Your task to perform on an android device: Show the shopping cart on walmart.com. Image 0: 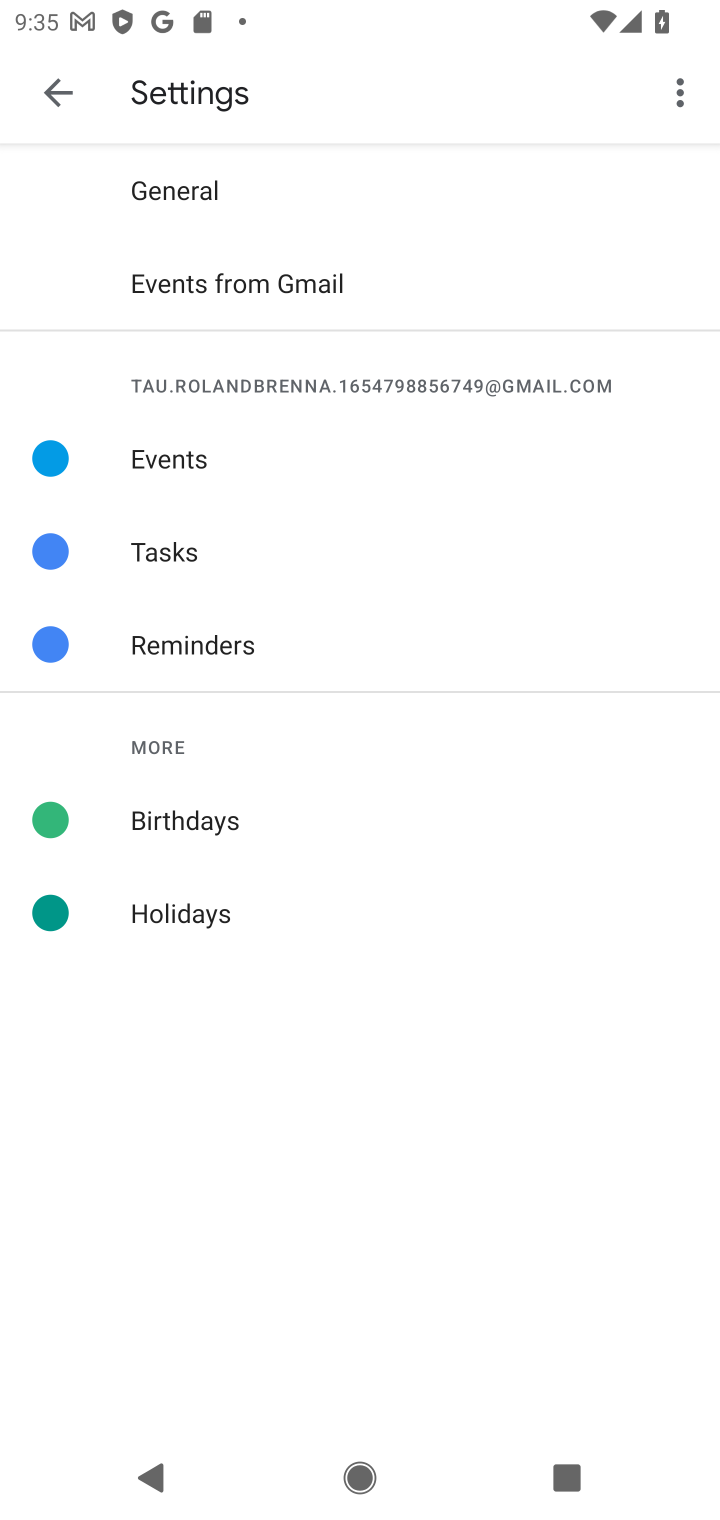
Step 0: press home button
Your task to perform on an android device: Show the shopping cart on walmart.com. Image 1: 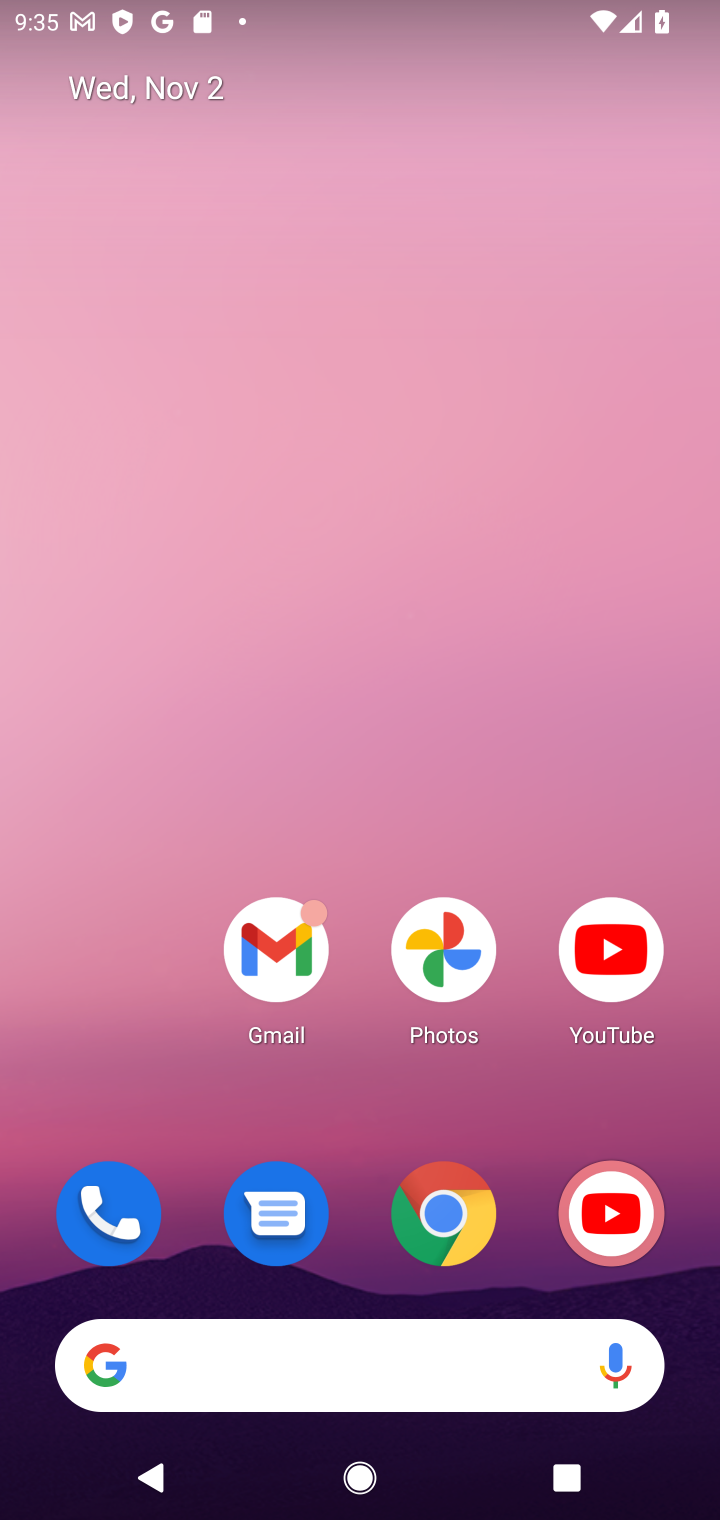
Step 1: click (427, 1210)
Your task to perform on an android device: Show the shopping cart on walmart.com. Image 2: 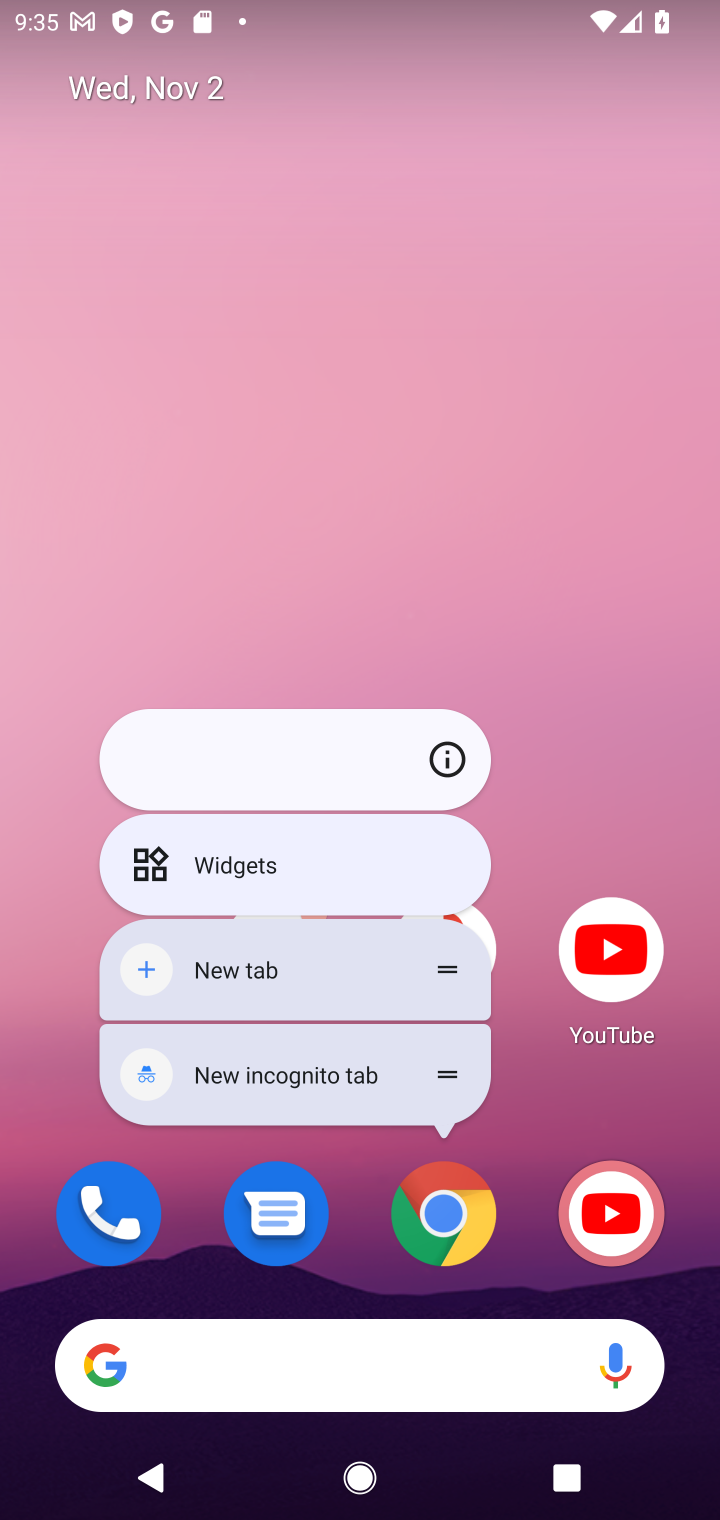
Step 2: click (435, 1234)
Your task to perform on an android device: Show the shopping cart on walmart.com. Image 3: 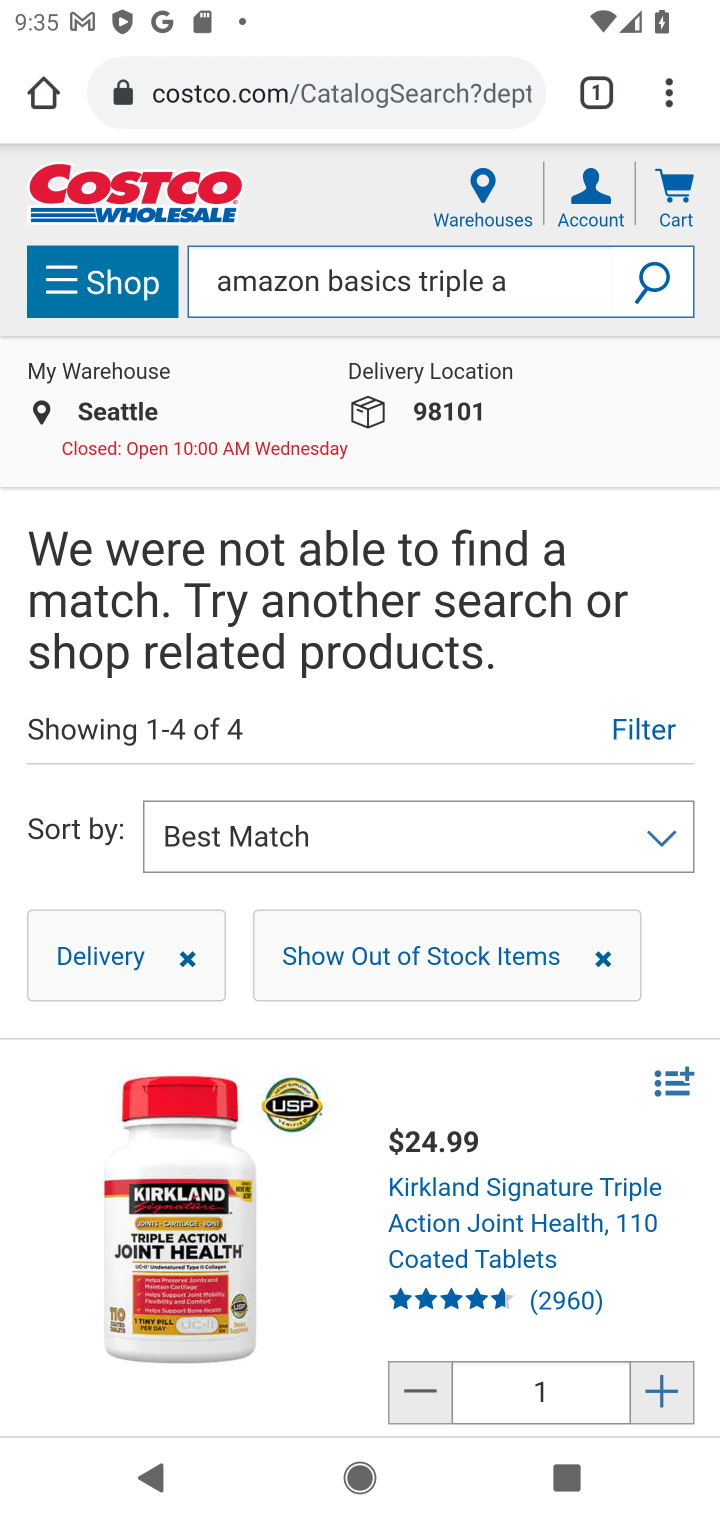
Step 3: click (310, 90)
Your task to perform on an android device: Show the shopping cart on walmart.com. Image 4: 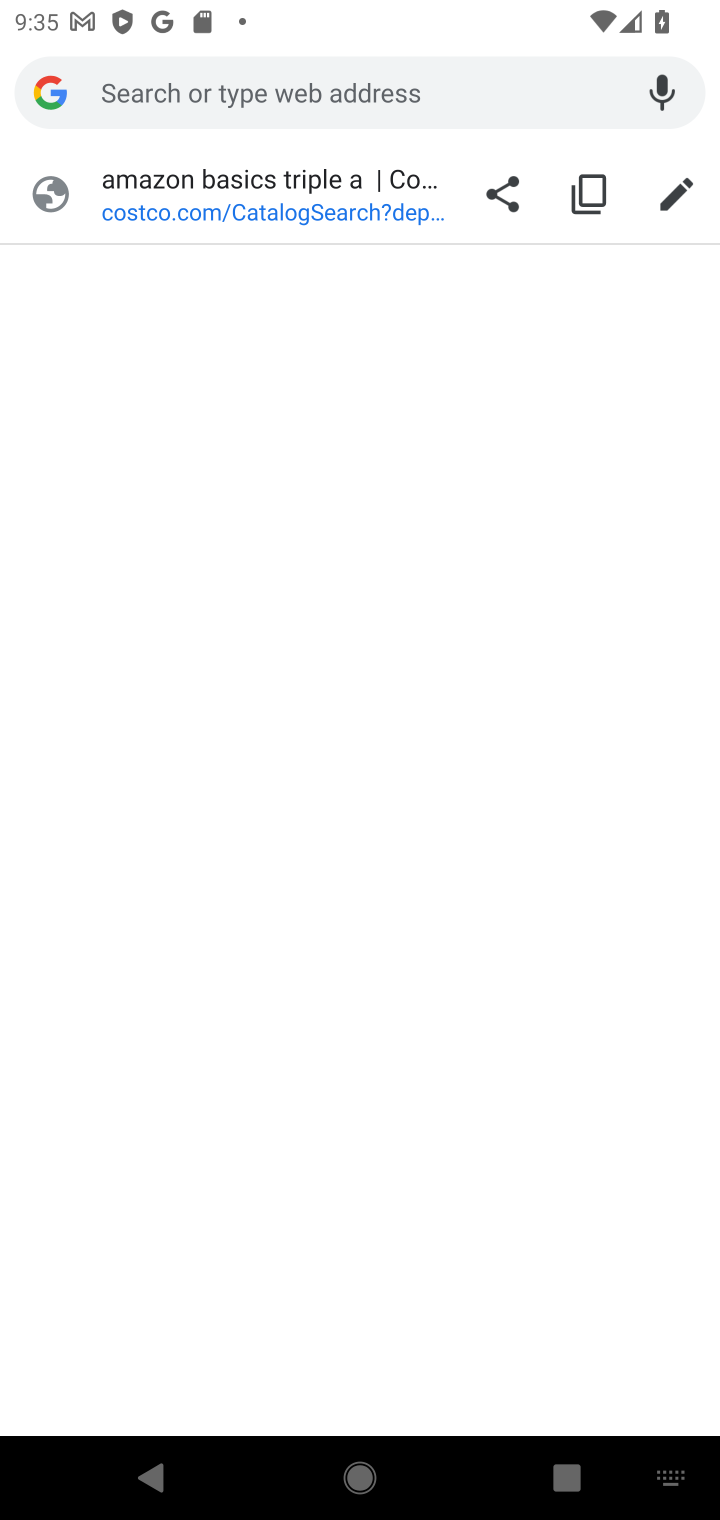
Step 4: type "walmart.com"
Your task to perform on an android device: Show the shopping cart on walmart.com. Image 5: 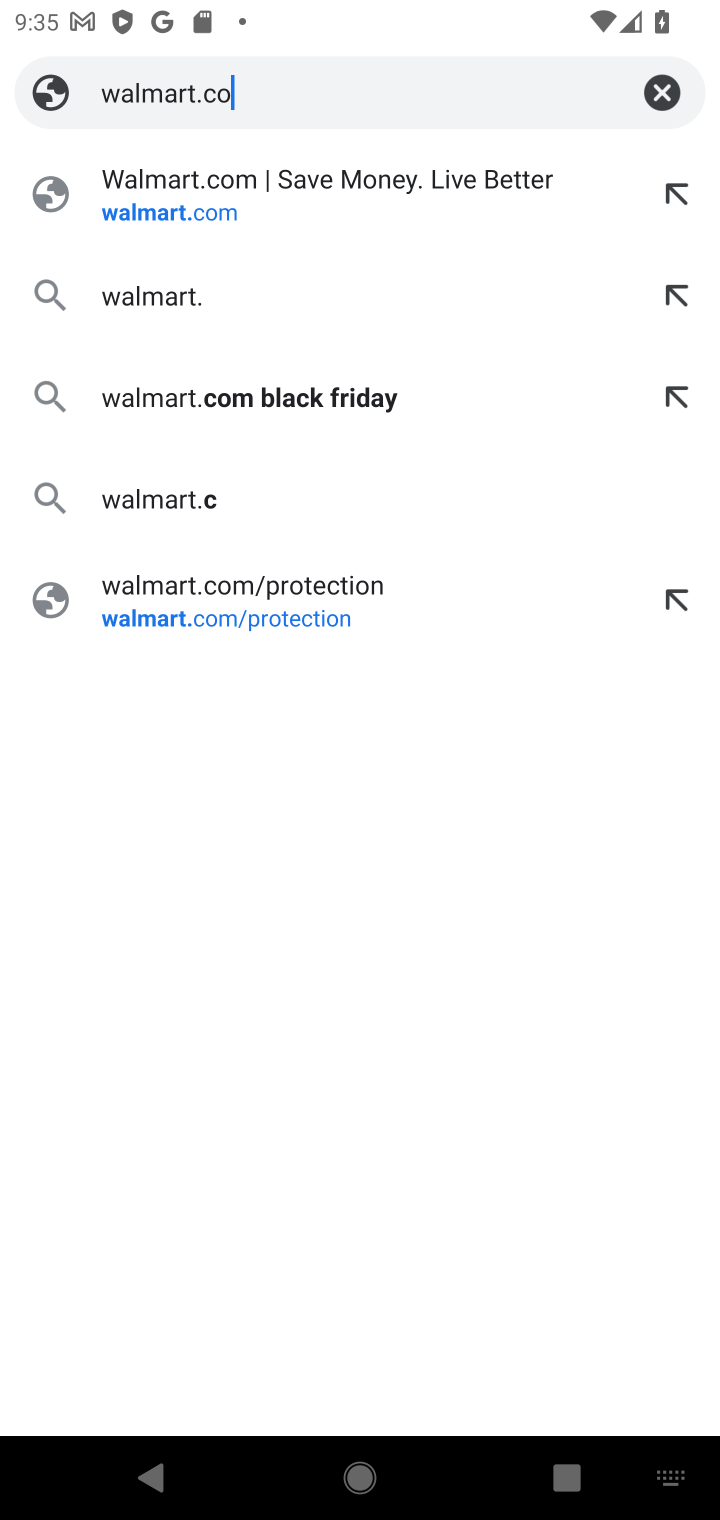
Step 5: type ""
Your task to perform on an android device: Show the shopping cart on walmart.com. Image 6: 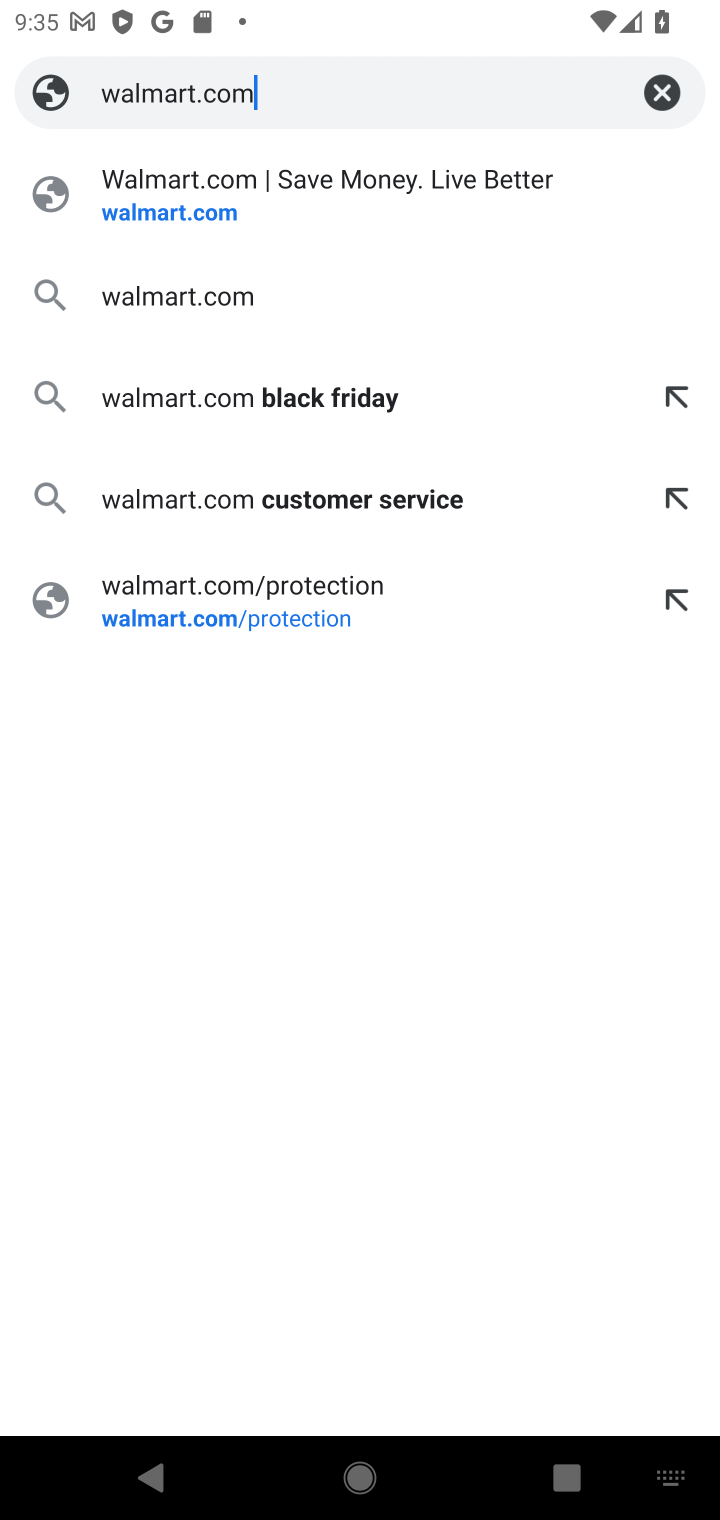
Step 6: click (319, 155)
Your task to perform on an android device: Show the shopping cart on walmart.com. Image 7: 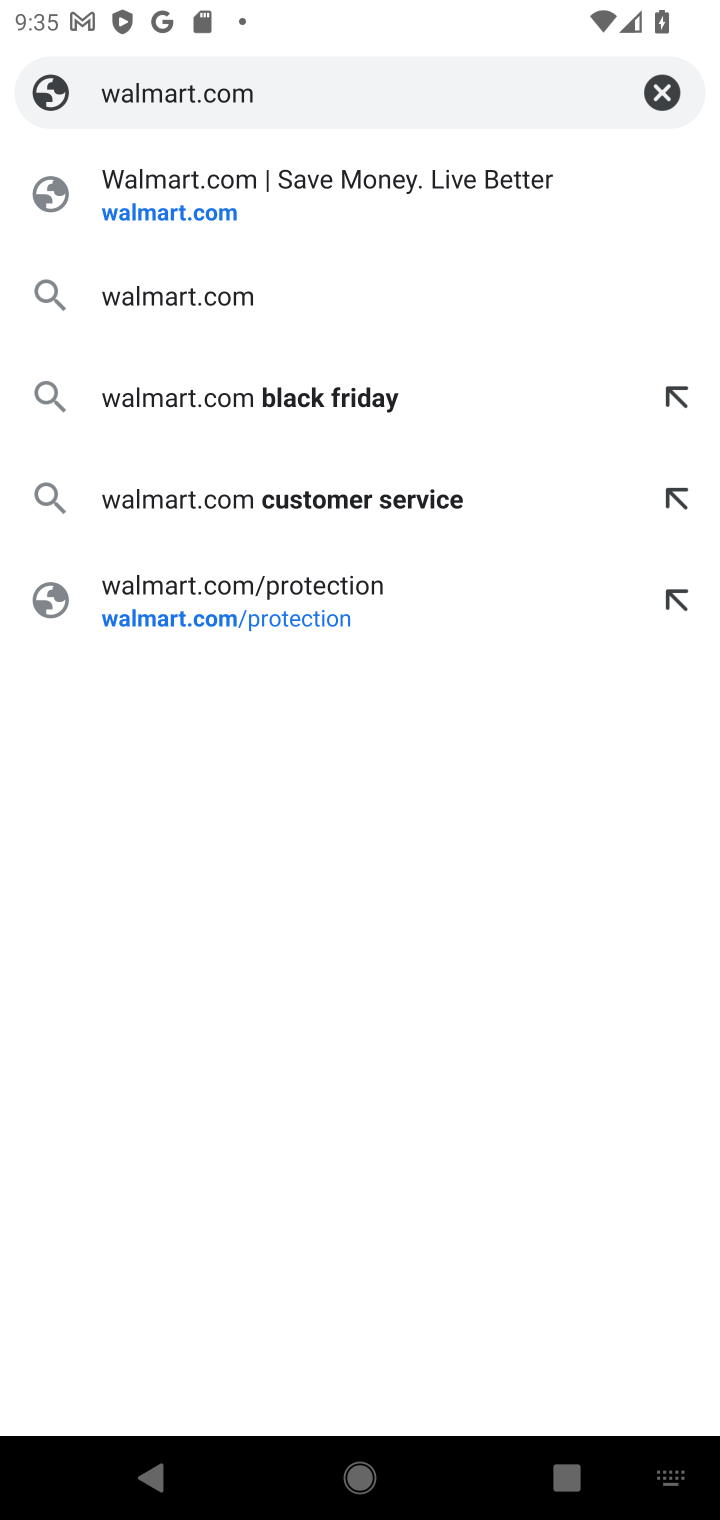
Step 7: click (311, 191)
Your task to perform on an android device: Show the shopping cart on walmart.com. Image 8: 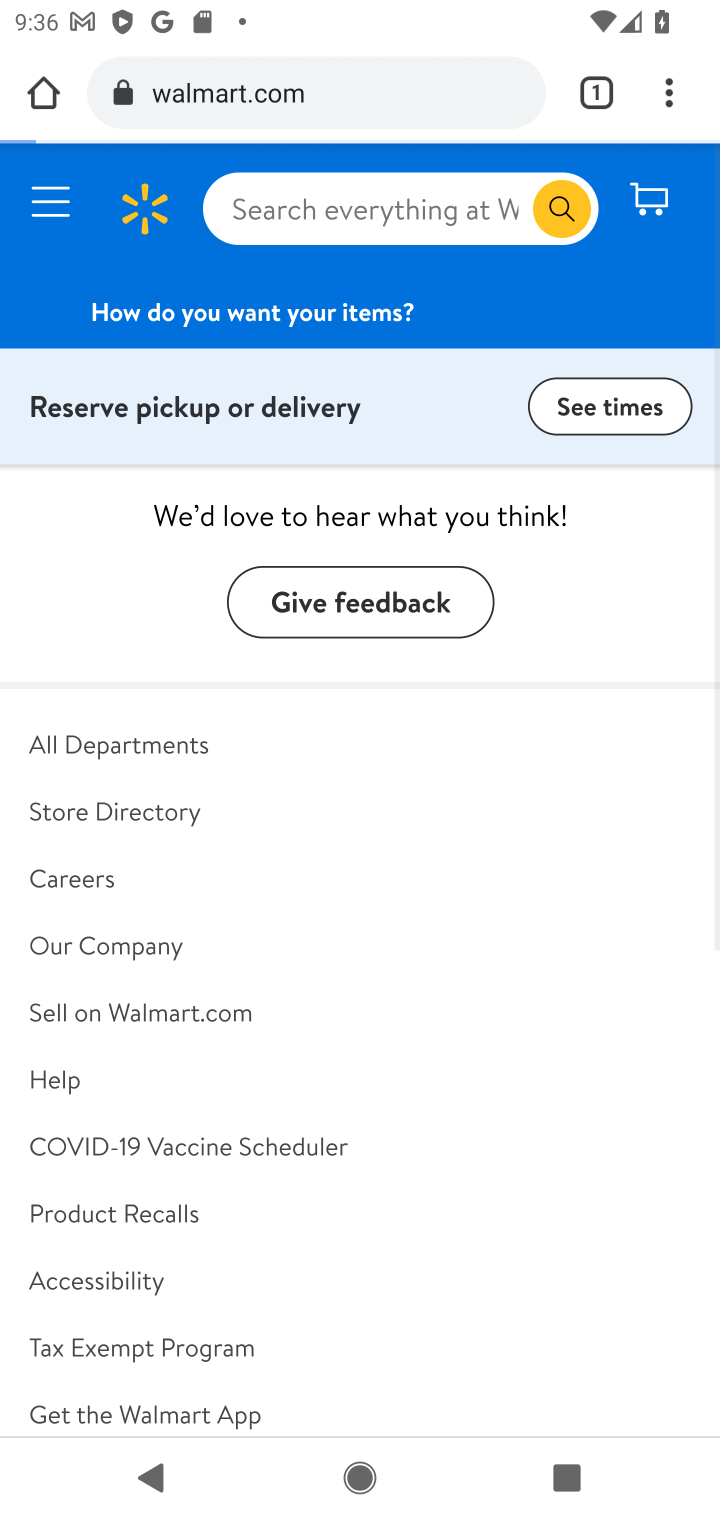
Step 8: click (311, 191)
Your task to perform on an android device: Show the shopping cart on walmart.com. Image 9: 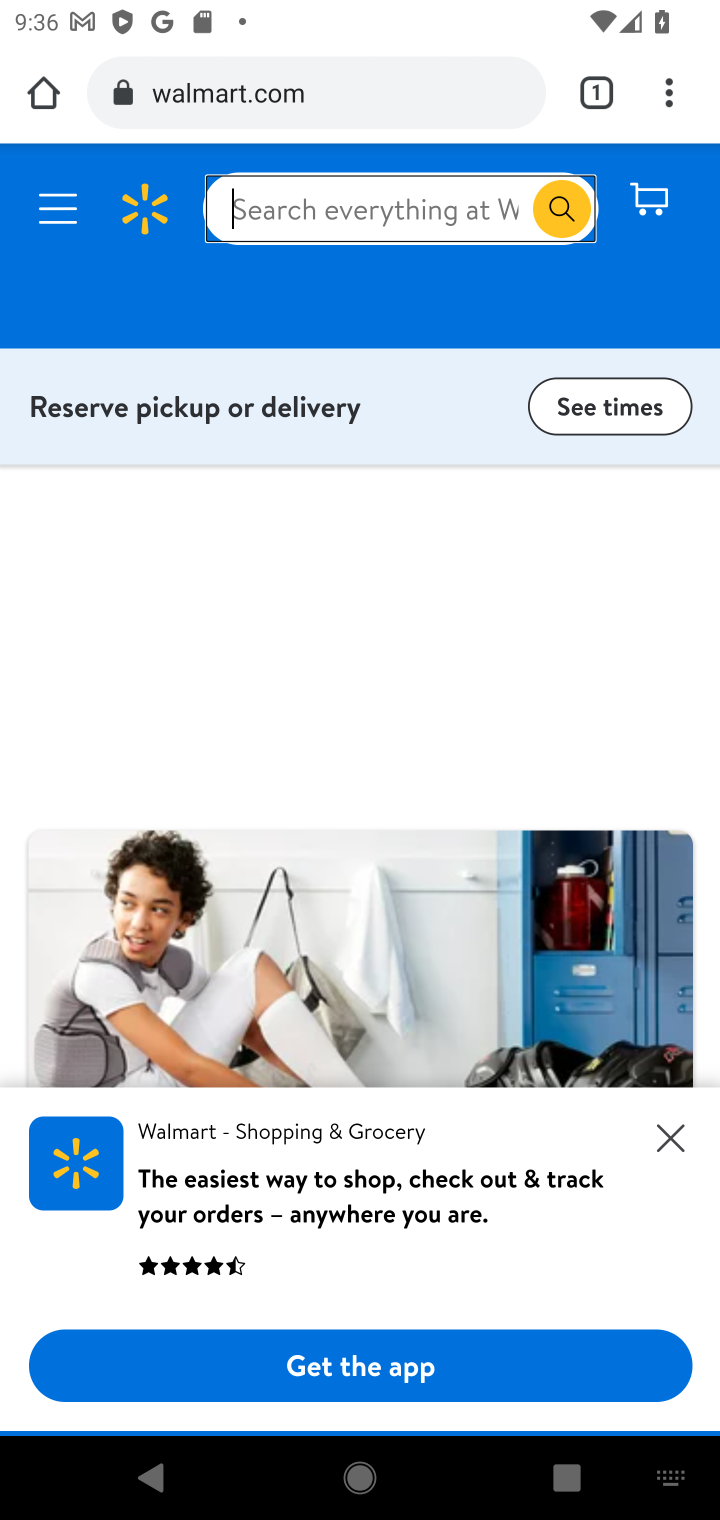
Step 9: click (666, 186)
Your task to perform on an android device: Show the shopping cart on walmart.com. Image 10: 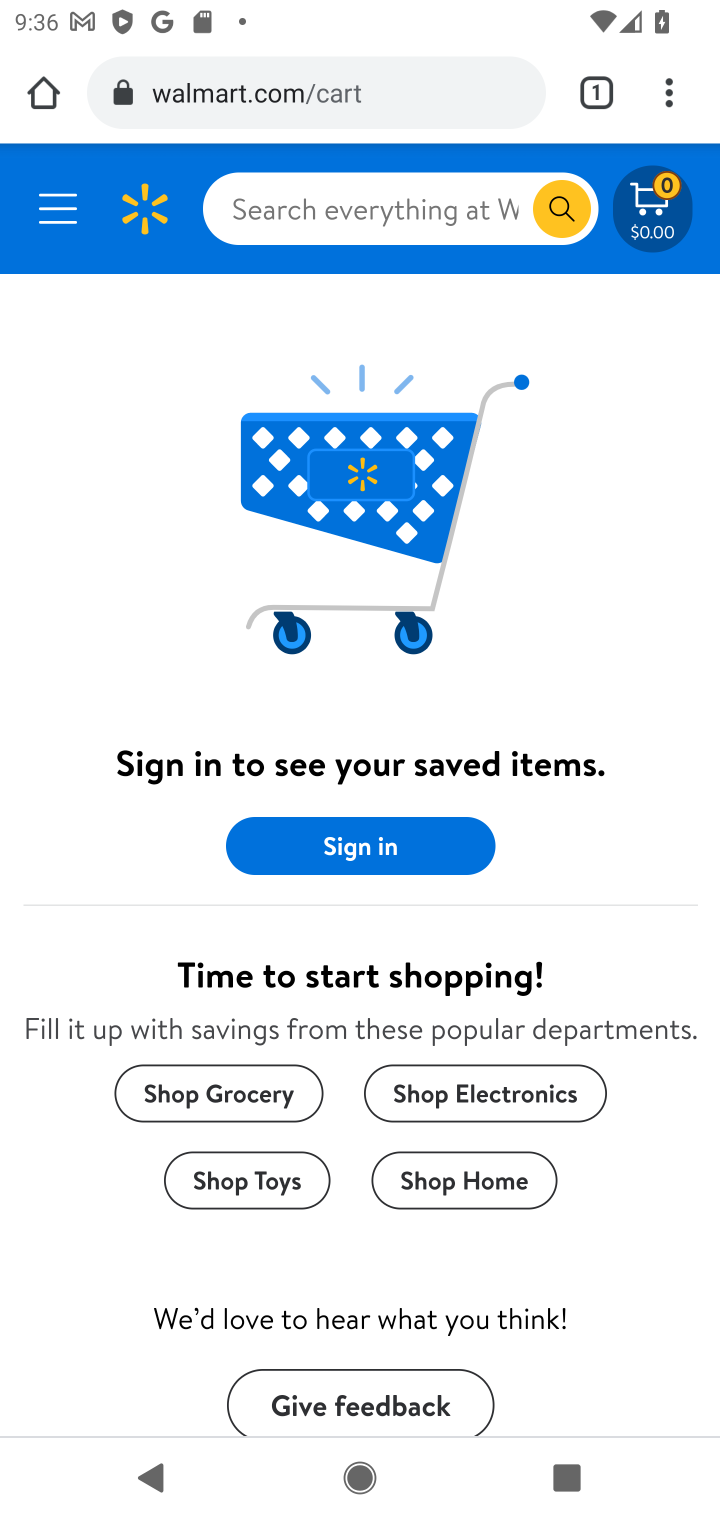
Step 10: task complete